Your task to perform on an android device: Go to Wikipedia Image 0: 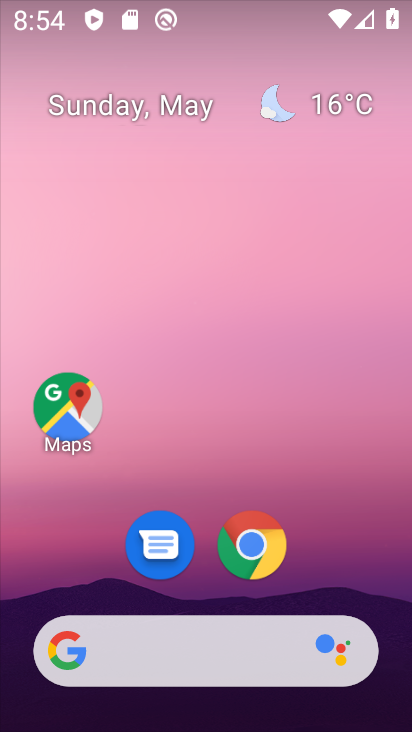
Step 0: click (255, 544)
Your task to perform on an android device: Go to Wikipedia Image 1: 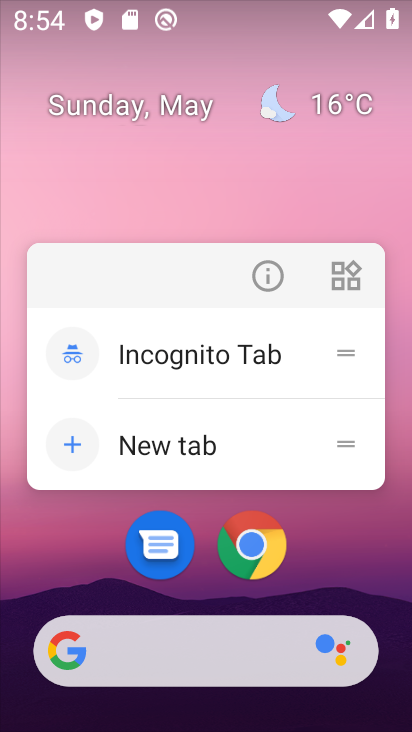
Step 1: click (262, 542)
Your task to perform on an android device: Go to Wikipedia Image 2: 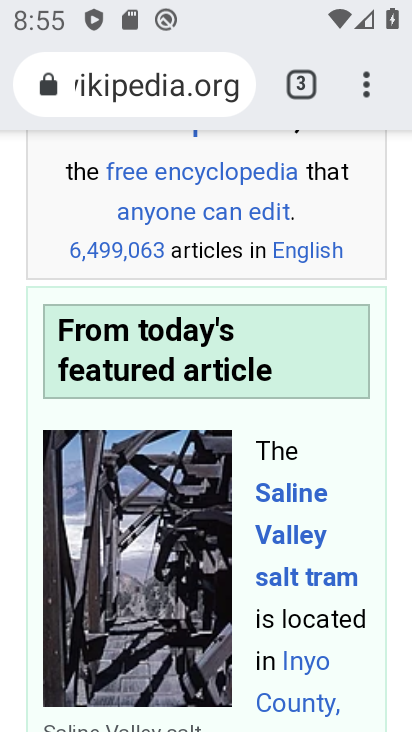
Step 2: task complete